Your task to perform on an android device: Go to settings Image 0: 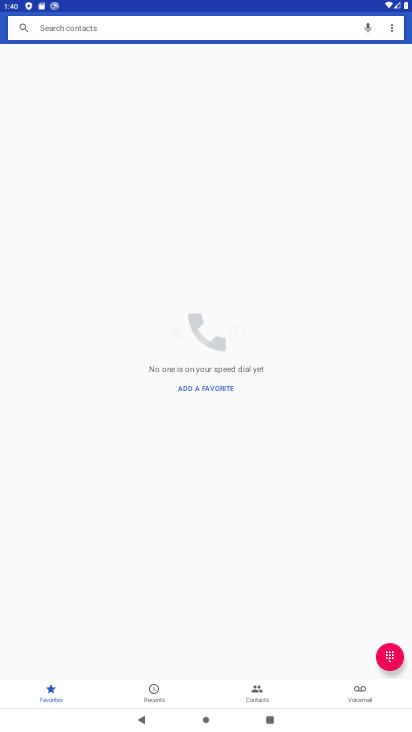
Step 0: press home button
Your task to perform on an android device: Go to settings Image 1: 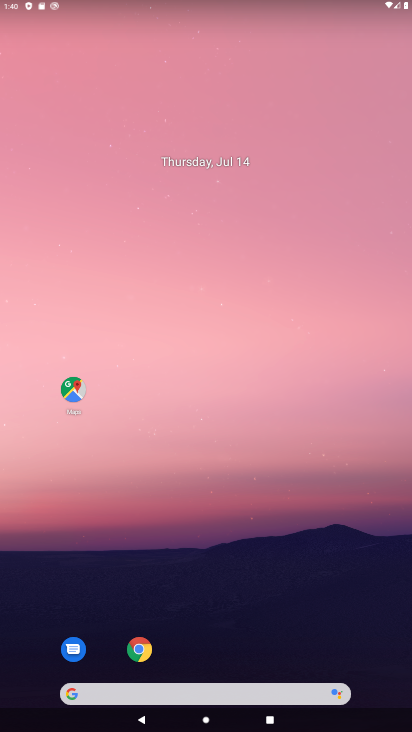
Step 1: drag from (221, 652) to (274, 45)
Your task to perform on an android device: Go to settings Image 2: 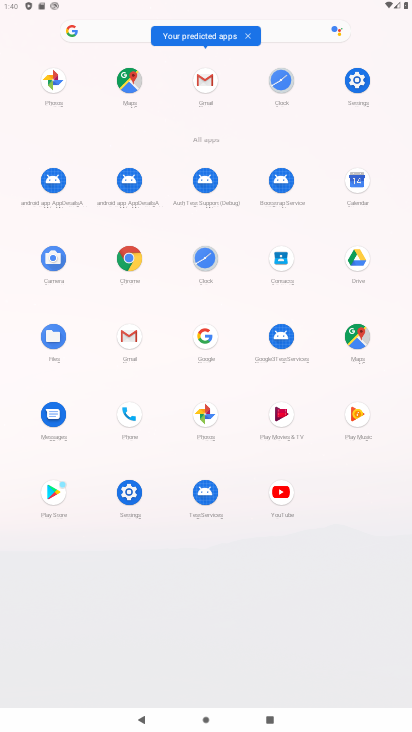
Step 2: click (129, 487)
Your task to perform on an android device: Go to settings Image 3: 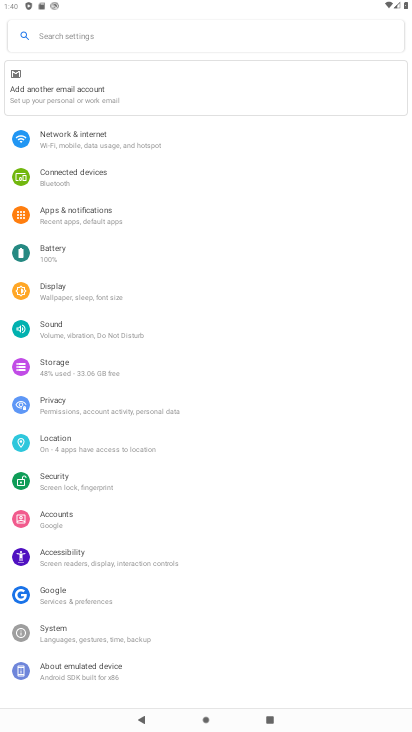
Step 3: task complete